Your task to perform on an android device: open a bookmark in the chrome app Image 0: 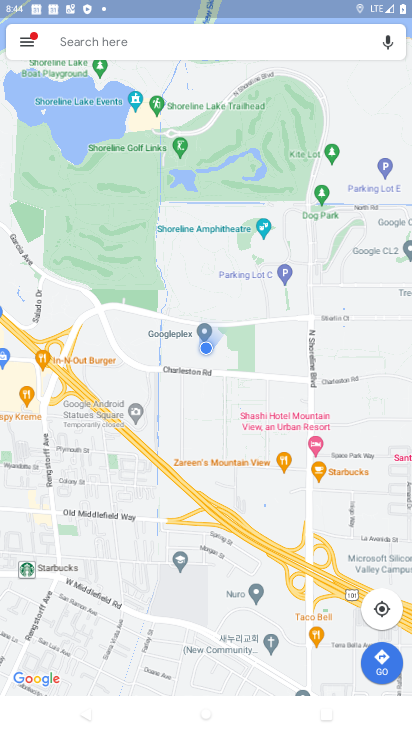
Step 0: press back button
Your task to perform on an android device: open a bookmark in the chrome app Image 1: 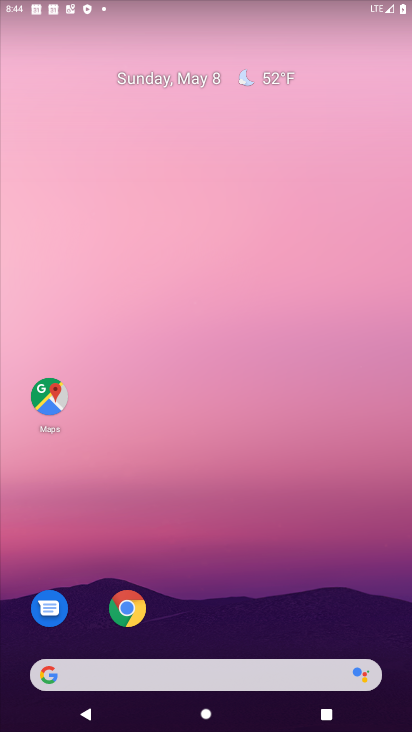
Step 1: drag from (226, 558) to (188, 10)
Your task to perform on an android device: open a bookmark in the chrome app Image 2: 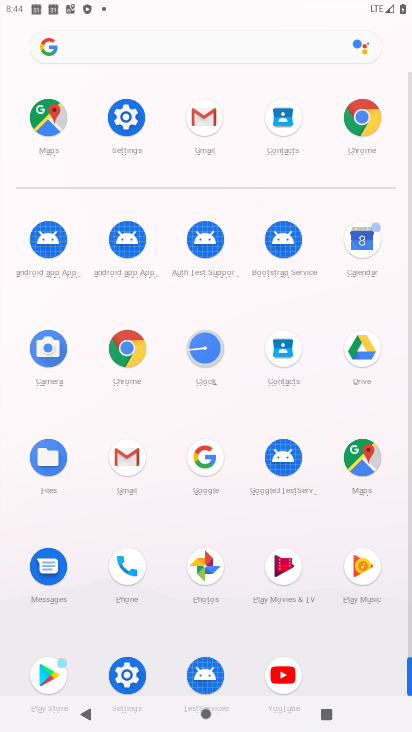
Step 2: click (363, 111)
Your task to perform on an android device: open a bookmark in the chrome app Image 3: 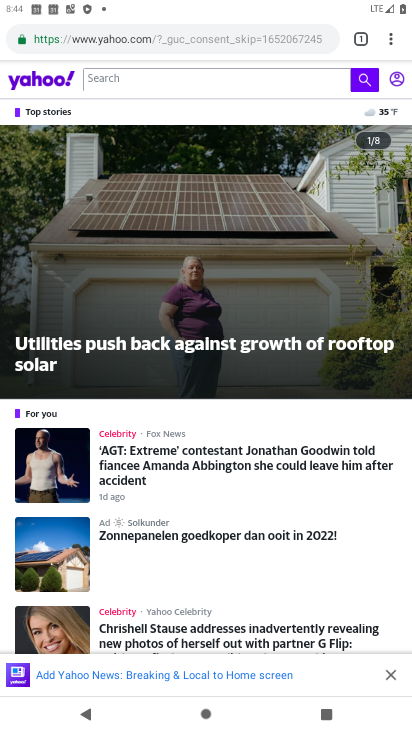
Step 3: drag from (390, 37) to (271, 146)
Your task to perform on an android device: open a bookmark in the chrome app Image 4: 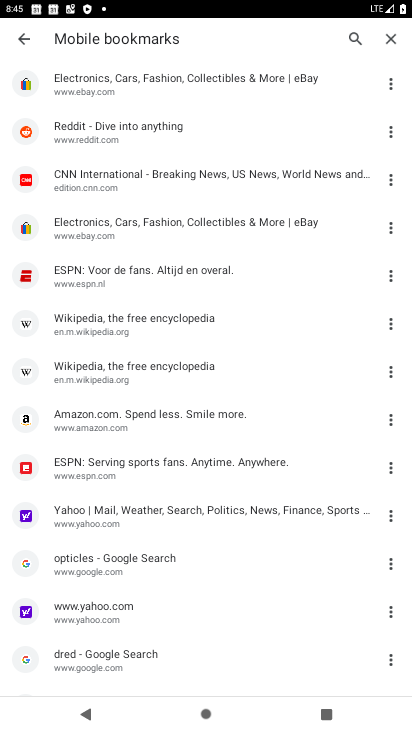
Step 4: drag from (199, 538) to (238, 182)
Your task to perform on an android device: open a bookmark in the chrome app Image 5: 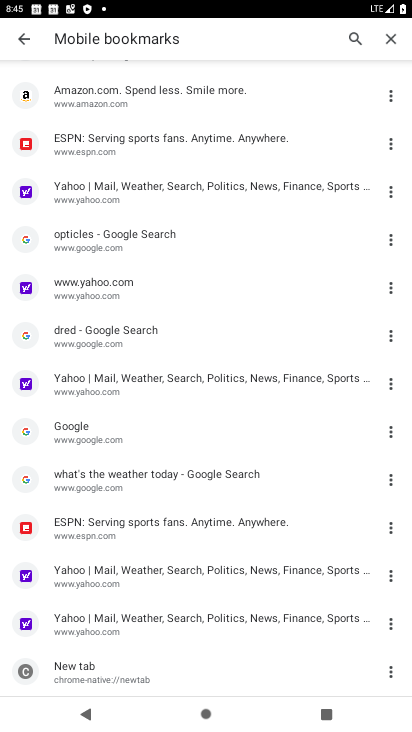
Step 5: click (389, 483)
Your task to perform on an android device: open a bookmark in the chrome app Image 6: 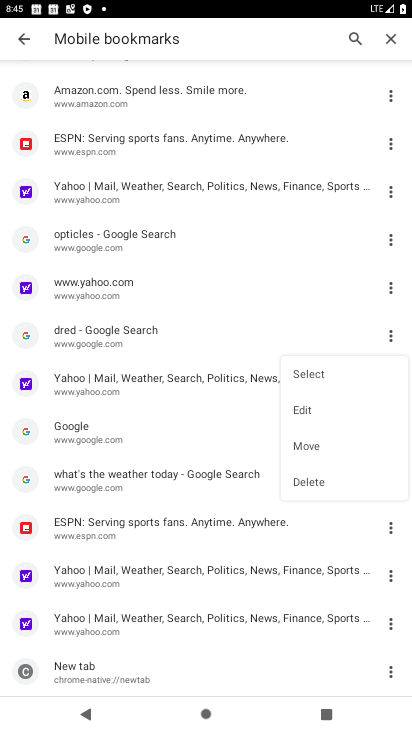
Step 6: click (368, 482)
Your task to perform on an android device: open a bookmark in the chrome app Image 7: 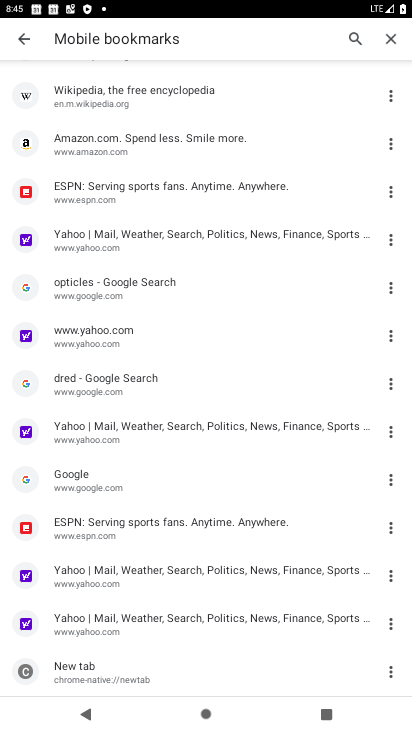
Step 7: click (392, 380)
Your task to perform on an android device: open a bookmark in the chrome app Image 8: 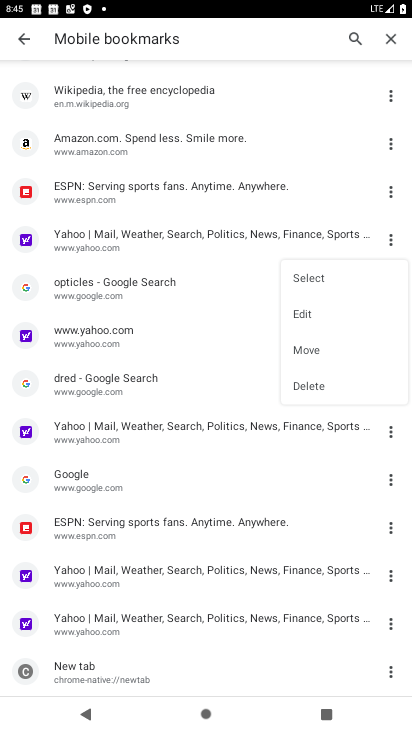
Step 8: click (353, 384)
Your task to perform on an android device: open a bookmark in the chrome app Image 9: 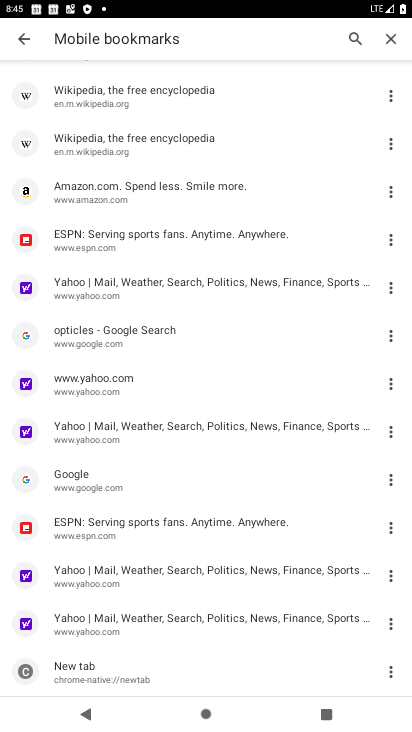
Step 9: task complete